Your task to perform on an android device: Clear the cart on walmart.com. Add "sony triple a" to the cart on walmart.com Image 0: 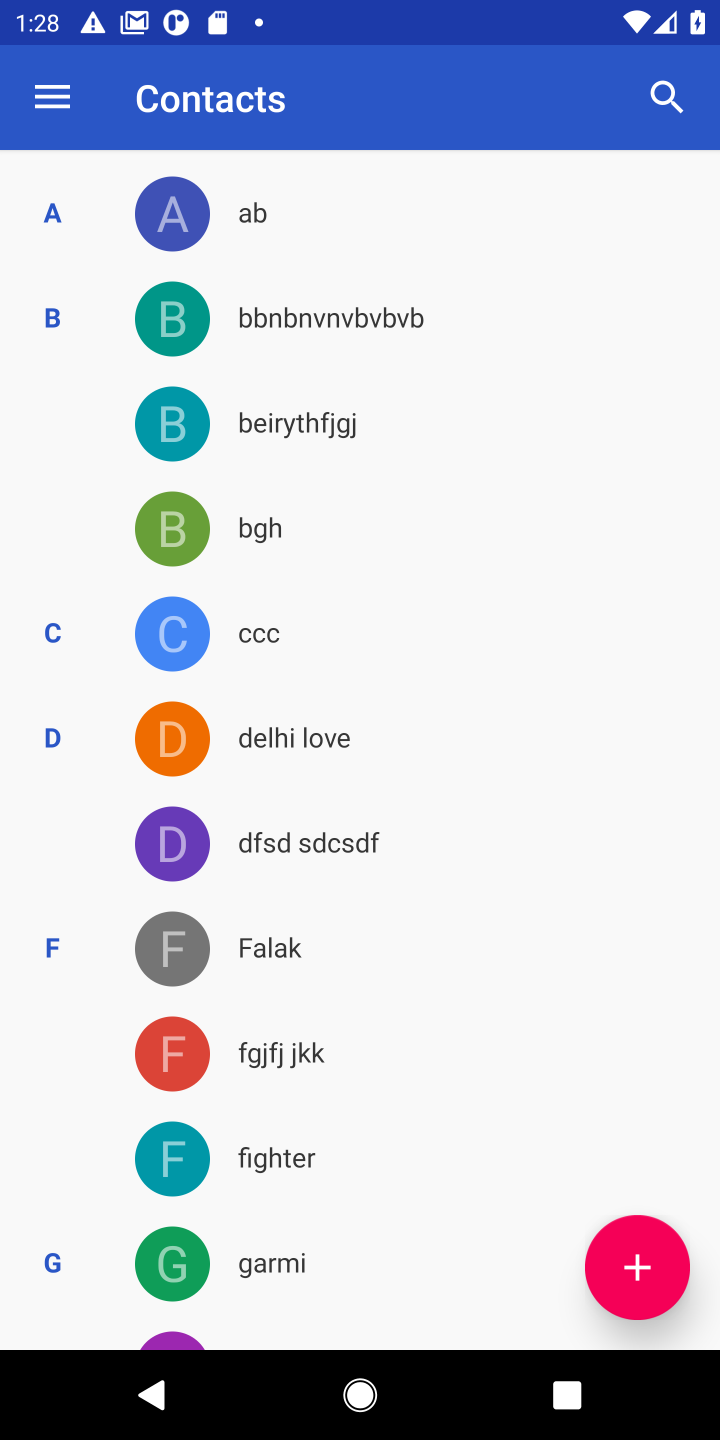
Step 0: press home button
Your task to perform on an android device: Clear the cart on walmart.com. Add "sony triple a" to the cart on walmart.com Image 1: 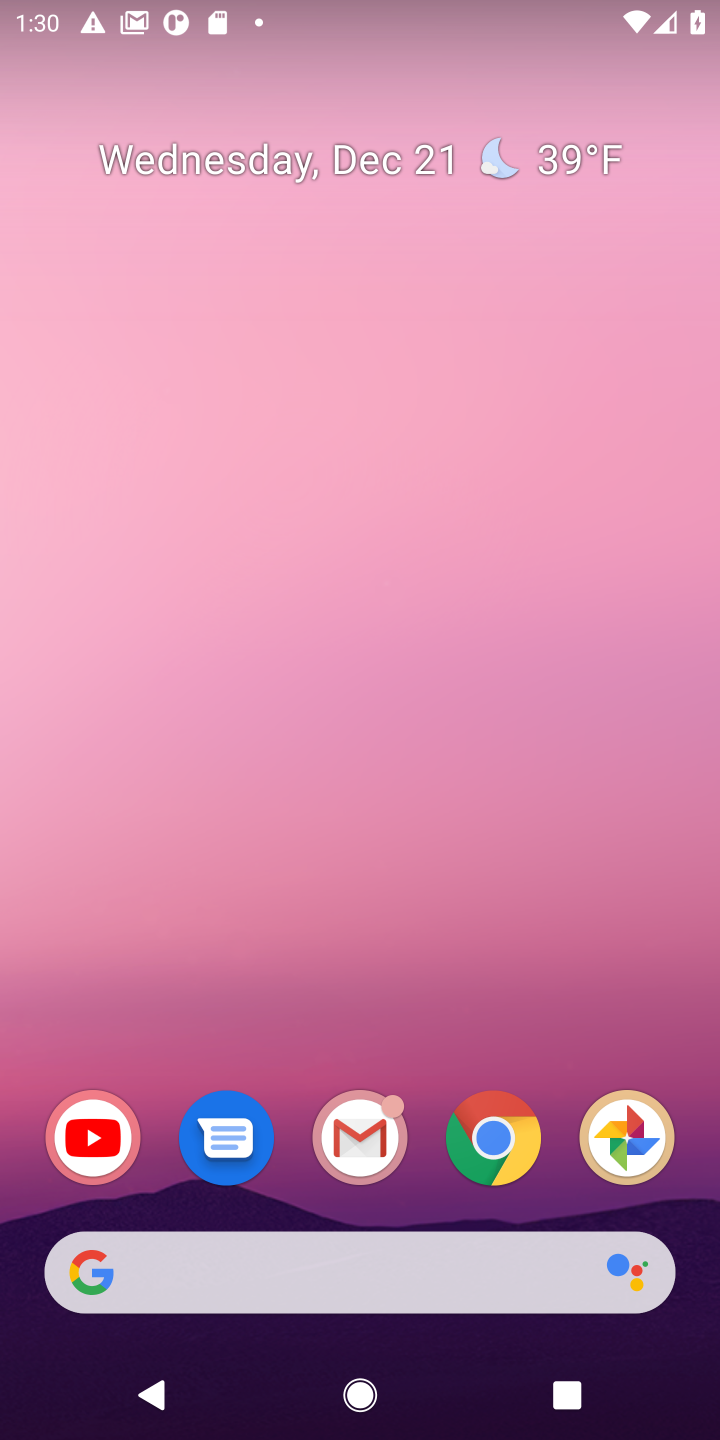
Step 1: click (331, 1295)
Your task to perform on an android device: Clear the cart on walmart.com. Add "sony triple a" to the cart on walmart.com Image 2: 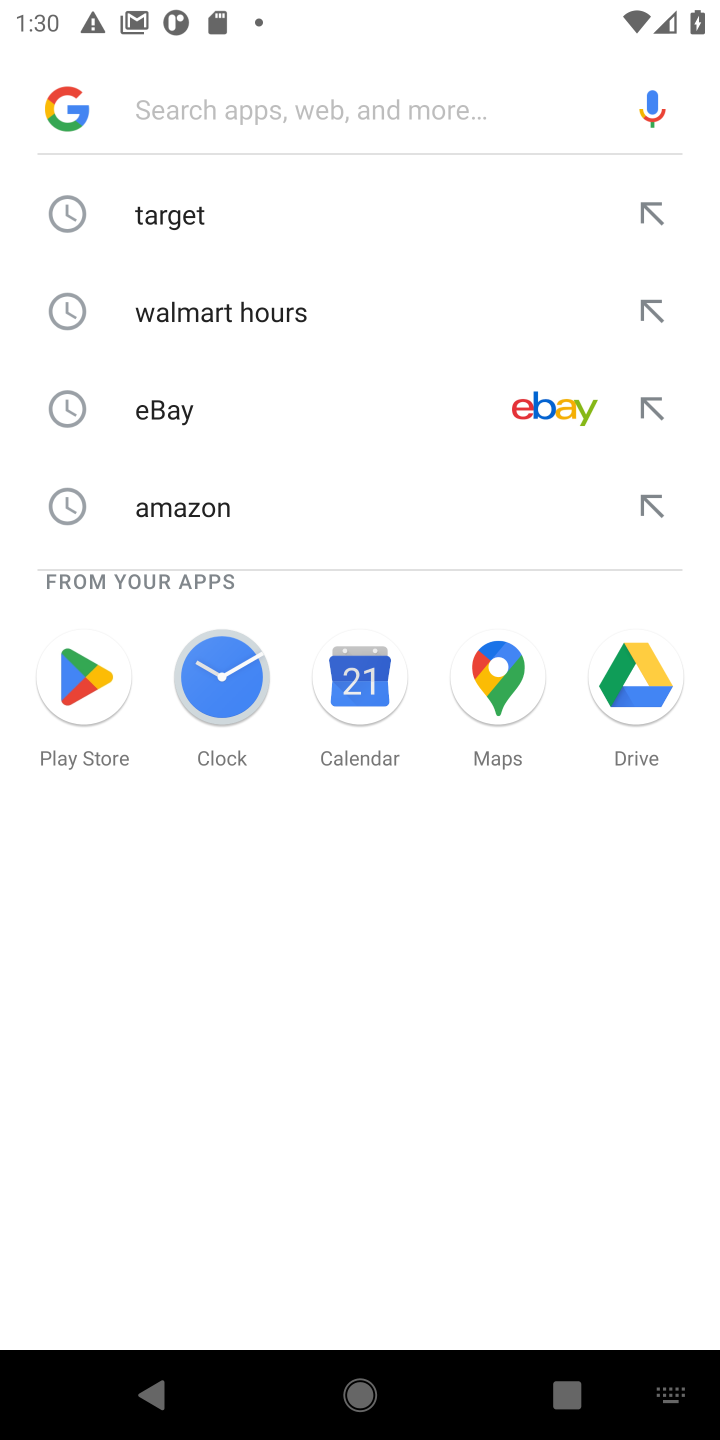
Step 2: click (283, 328)
Your task to perform on an android device: Clear the cart on walmart.com. Add "sony triple a" to the cart on walmart.com Image 3: 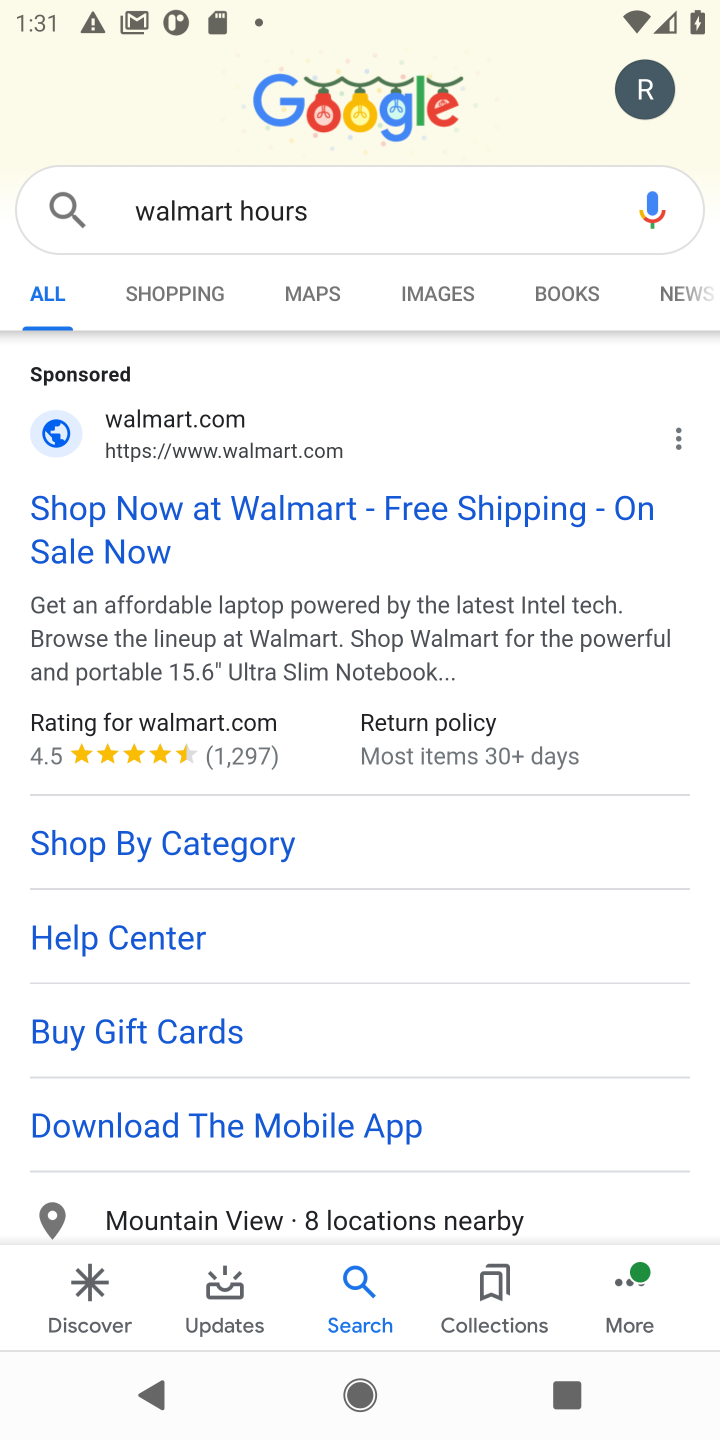
Step 3: click (226, 538)
Your task to perform on an android device: Clear the cart on walmart.com. Add "sony triple a" to the cart on walmart.com Image 4: 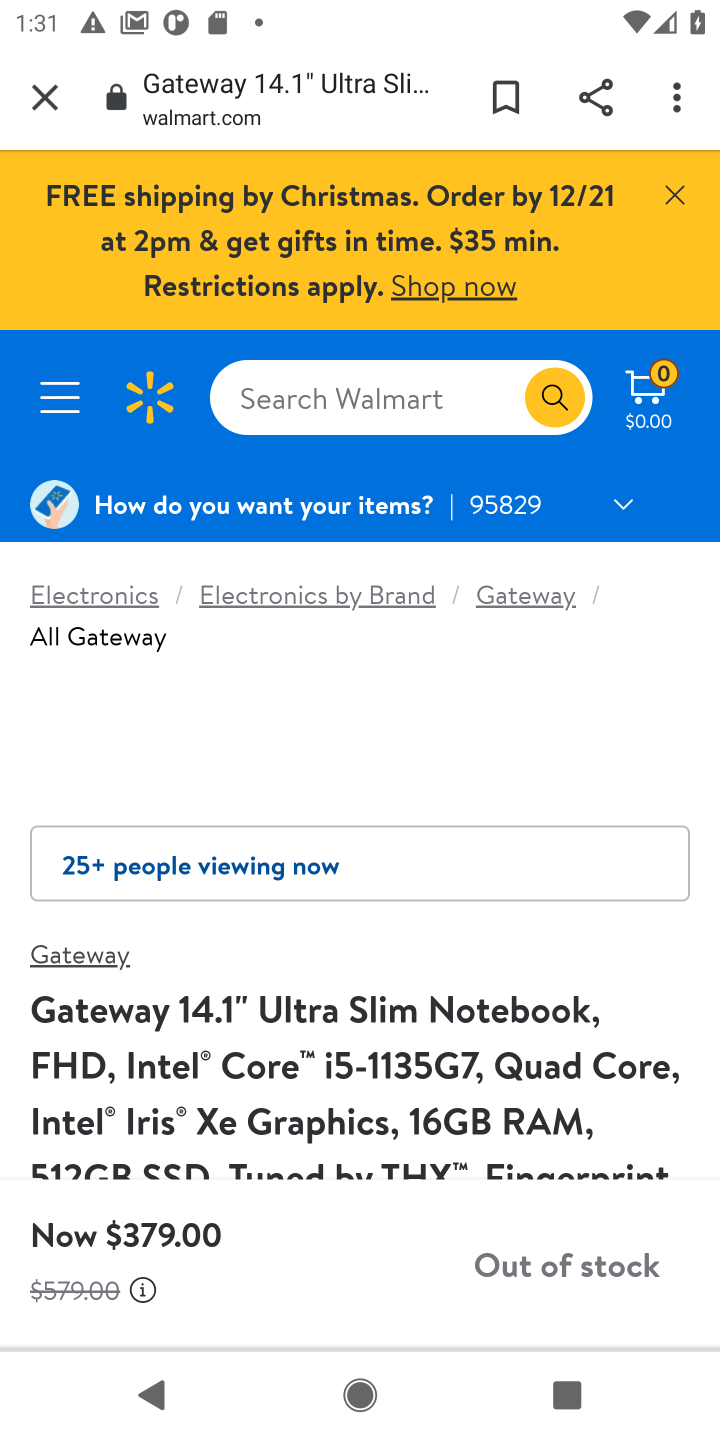
Step 4: click (655, 195)
Your task to perform on an android device: Clear the cart on walmart.com. Add "sony triple a" to the cart on walmart.com Image 5: 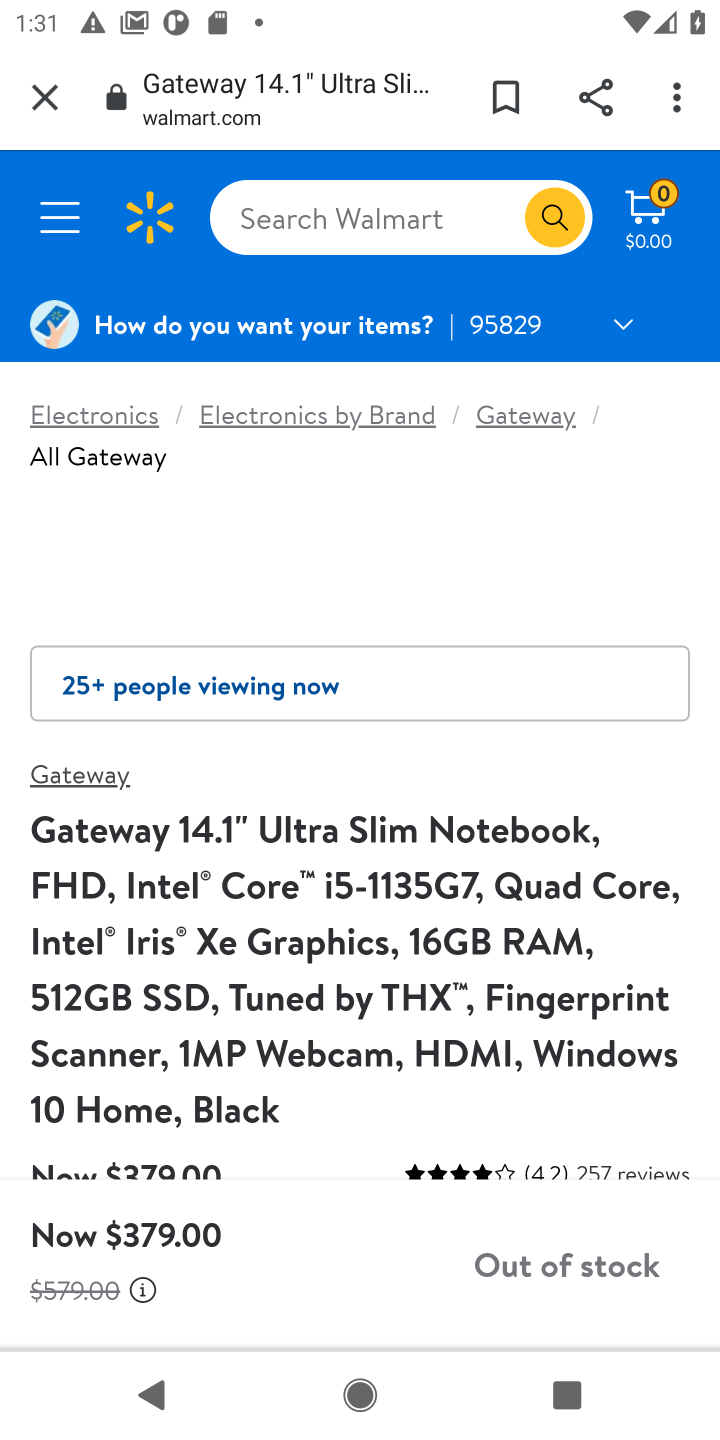
Step 5: click (394, 236)
Your task to perform on an android device: Clear the cart on walmart.com. Add "sony triple a" to the cart on walmart.com Image 6: 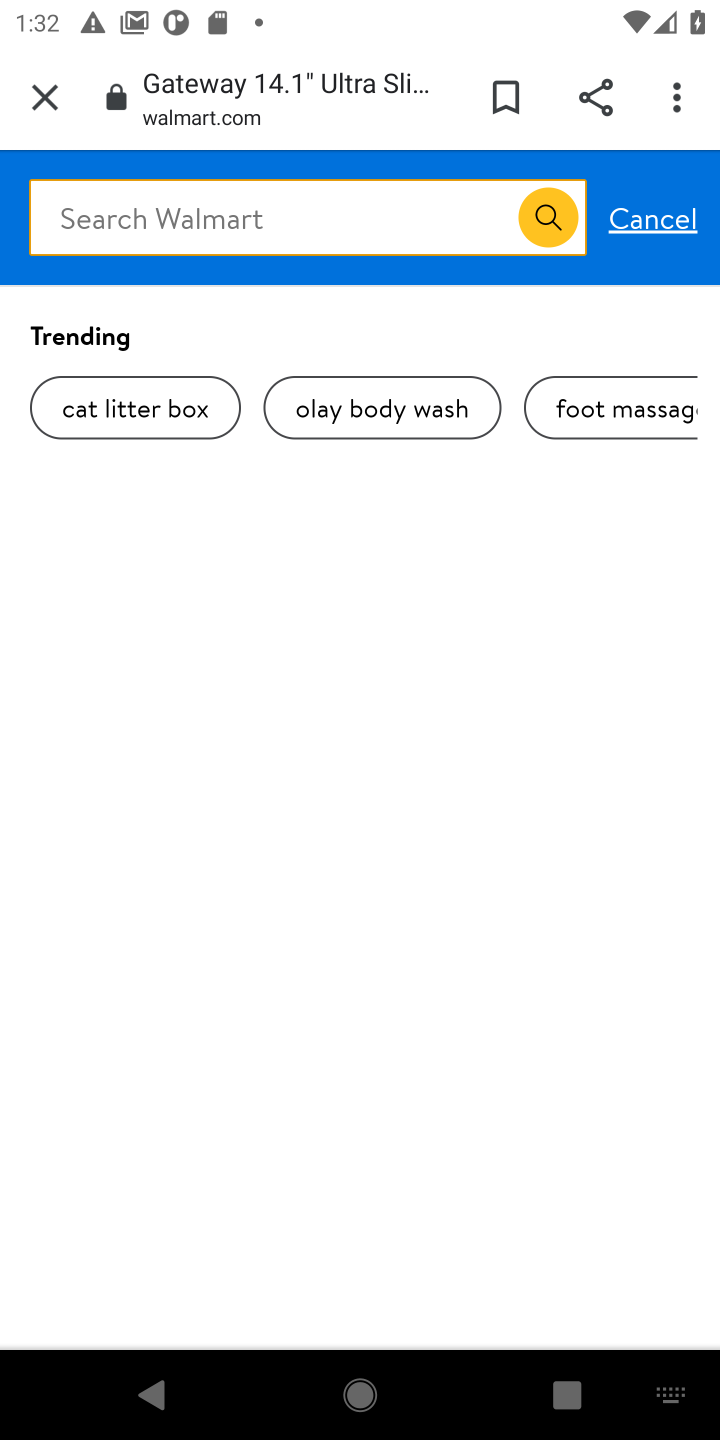
Step 6: type "sony triple a"
Your task to perform on an android device: Clear the cart on walmart.com. Add "sony triple a" to the cart on walmart.com Image 7: 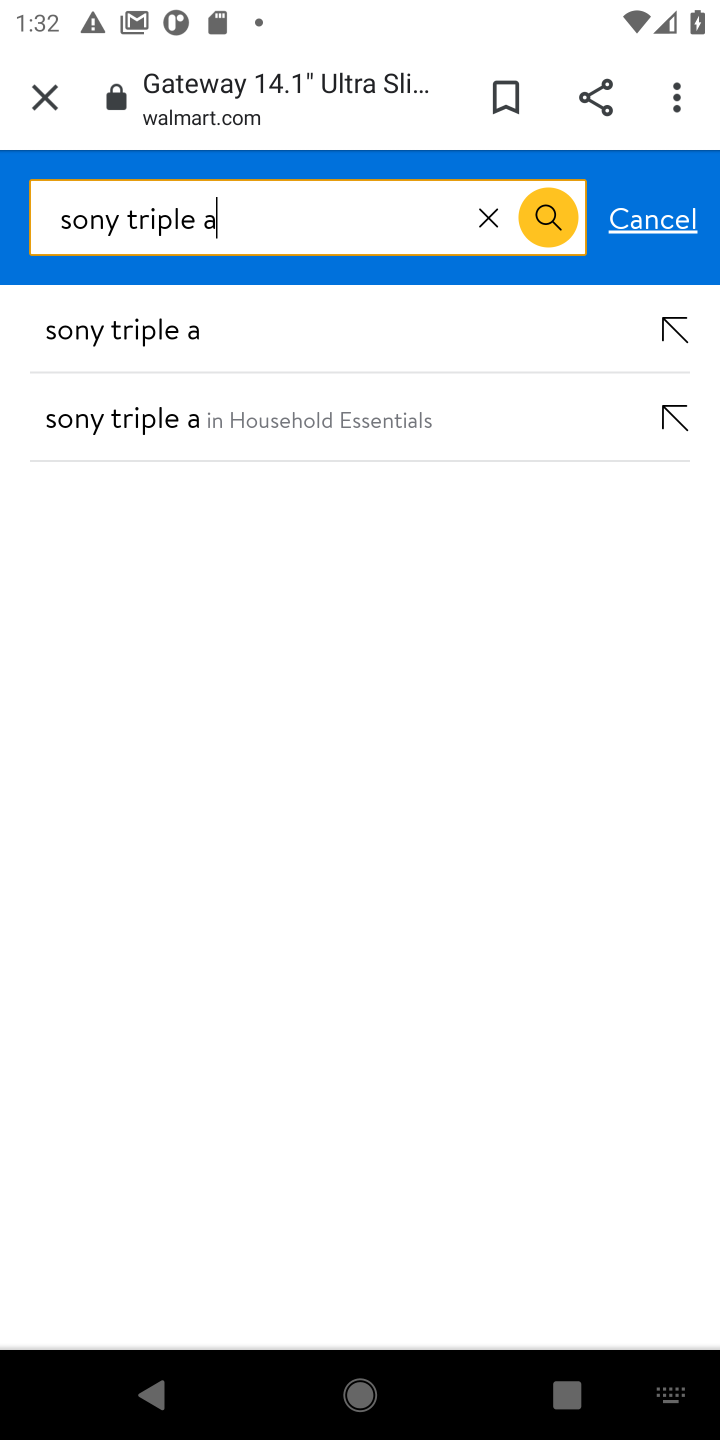
Step 7: click (153, 335)
Your task to perform on an android device: Clear the cart on walmart.com. Add "sony triple a" to the cart on walmart.com Image 8: 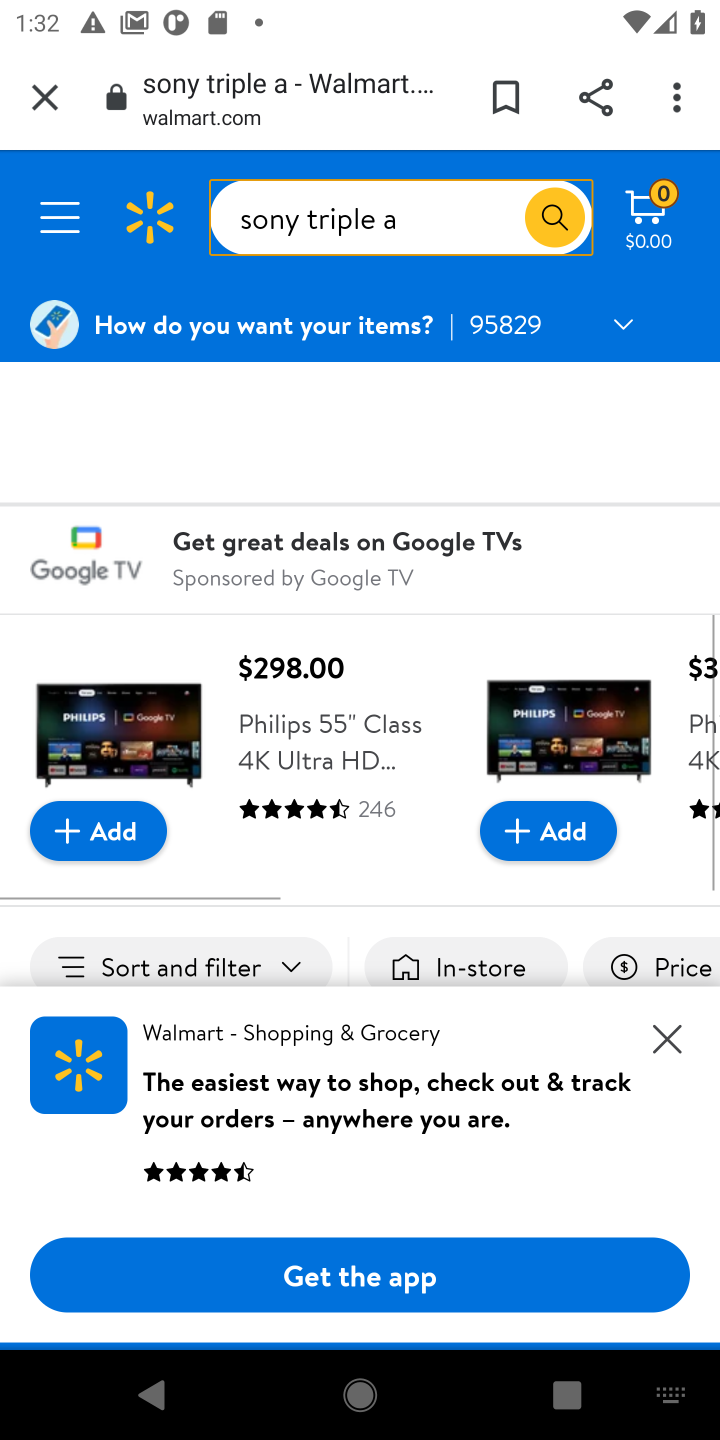
Step 8: click (680, 1022)
Your task to perform on an android device: Clear the cart on walmart.com. Add "sony triple a" to the cart on walmart.com Image 9: 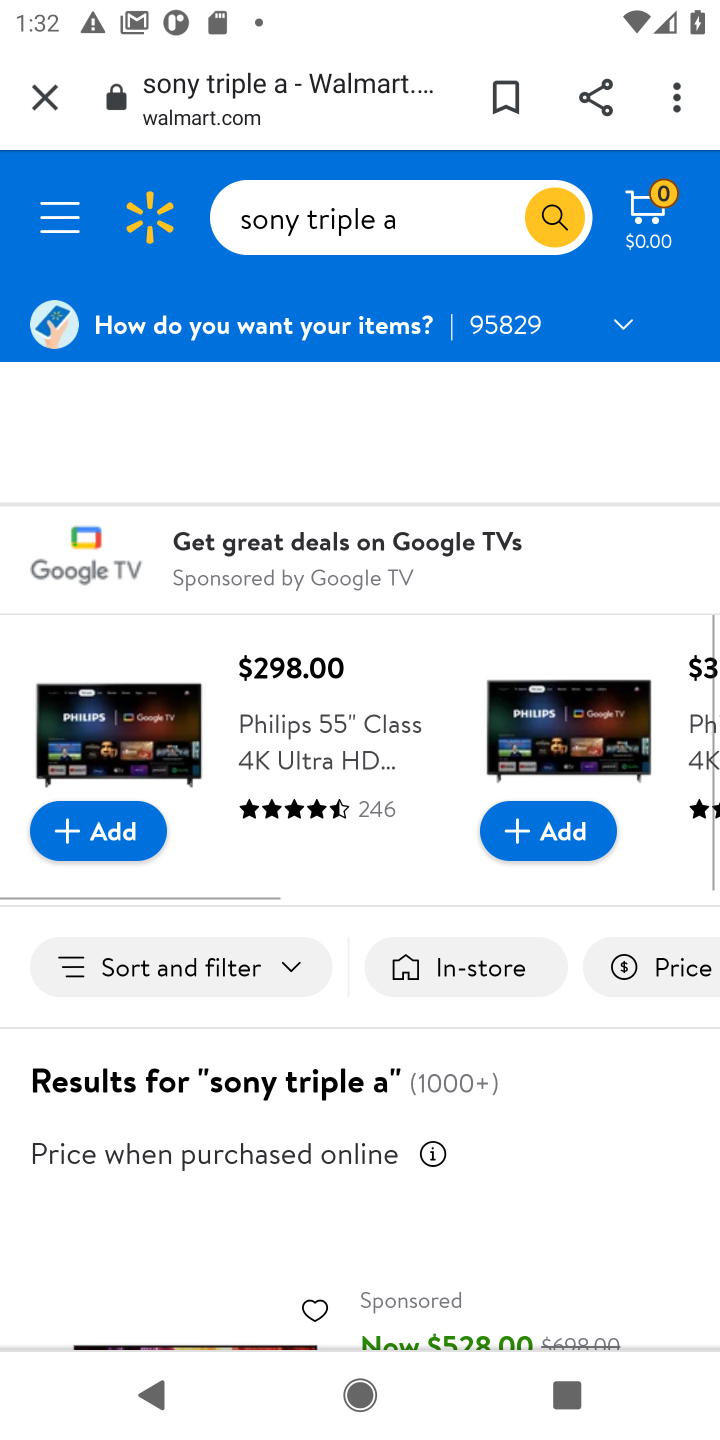
Step 9: drag from (498, 1227) to (524, 630)
Your task to perform on an android device: Clear the cart on walmart.com. Add "sony triple a" to the cart on walmart.com Image 10: 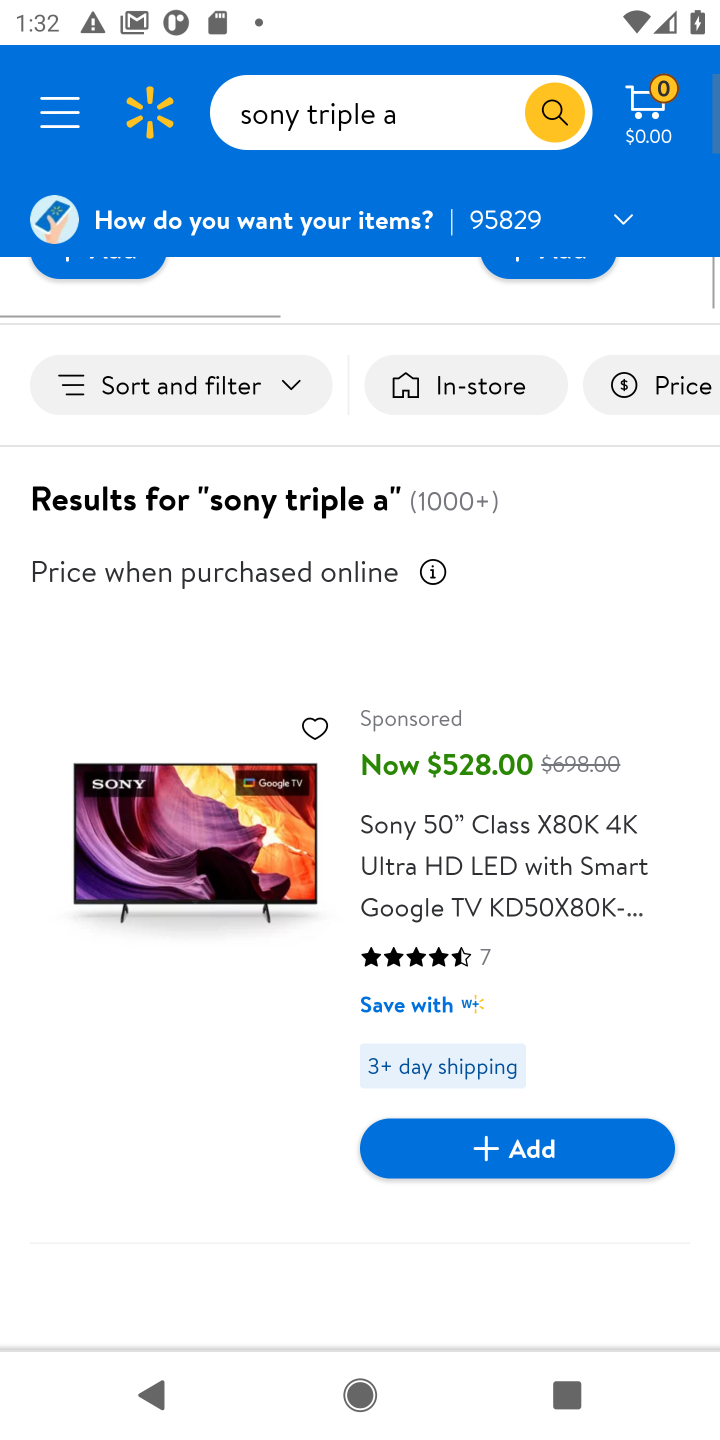
Step 10: click (540, 941)
Your task to perform on an android device: Clear the cart on walmart.com. Add "sony triple a" to the cart on walmart.com Image 11: 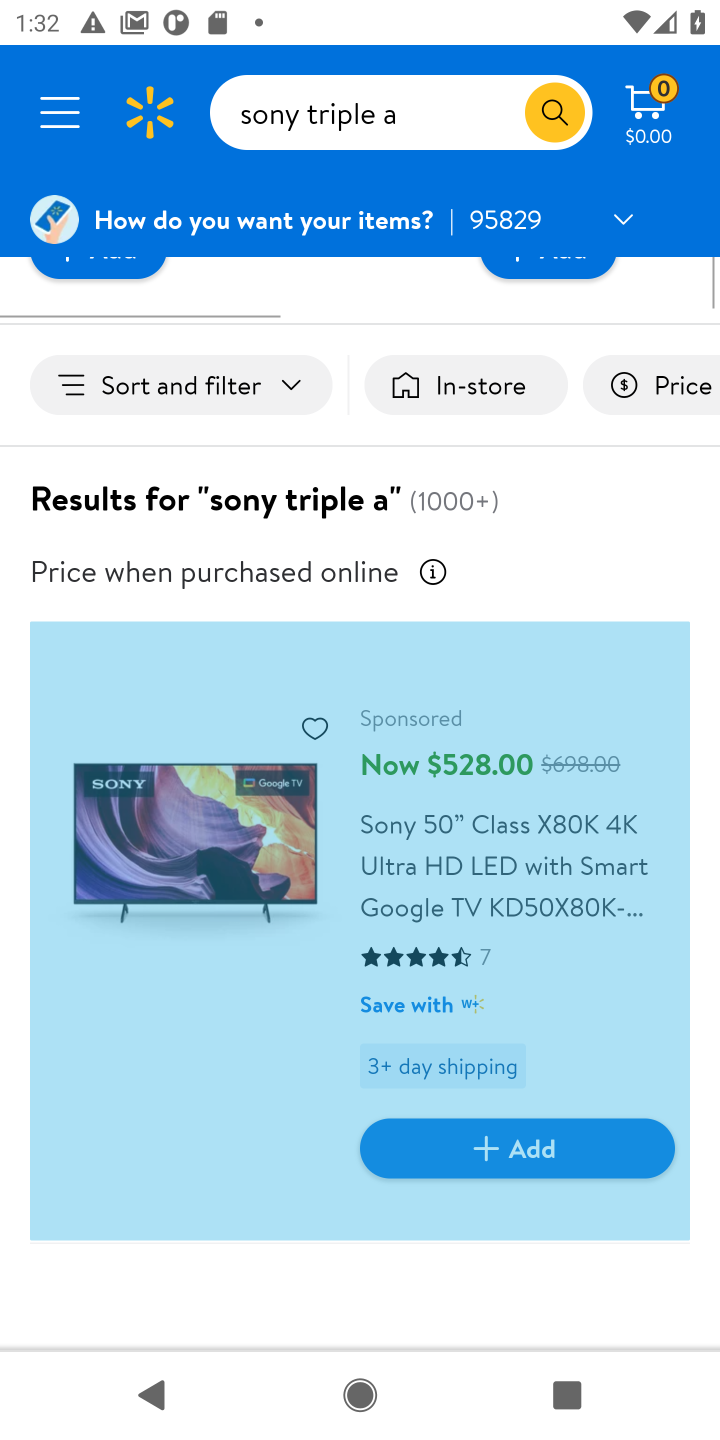
Step 11: task complete